Your task to perform on an android device: visit the assistant section in the google photos Image 0: 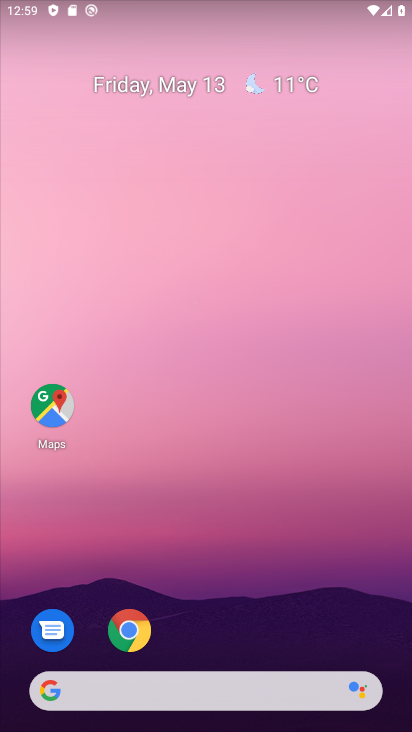
Step 0: drag from (232, 672) to (246, 324)
Your task to perform on an android device: visit the assistant section in the google photos Image 1: 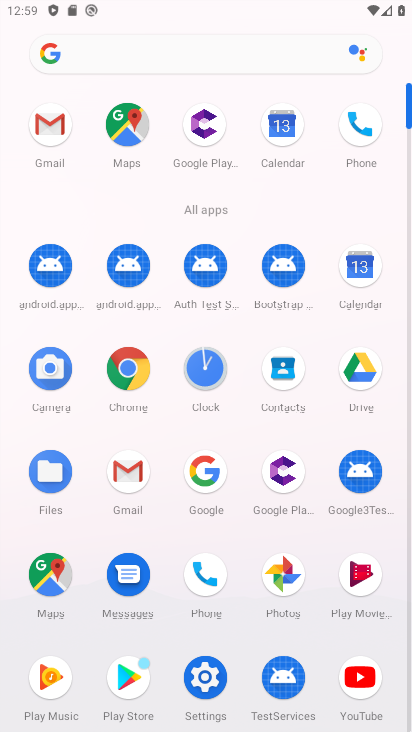
Step 1: click (284, 583)
Your task to perform on an android device: visit the assistant section in the google photos Image 2: 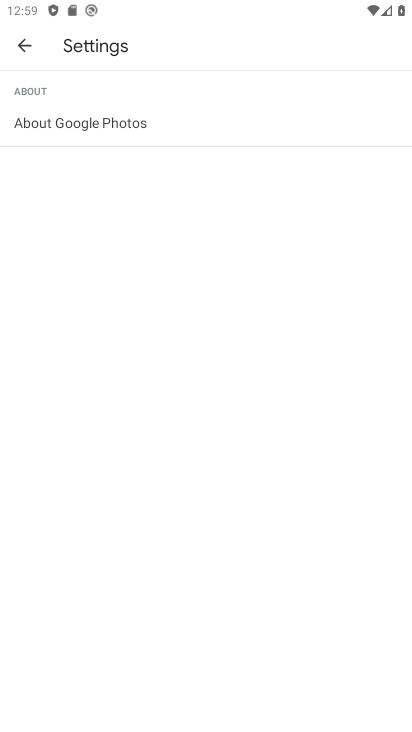
Step 2: click (30, 44)
Your task to perform on an android device: visit the assistant section in the google photos Image 3: 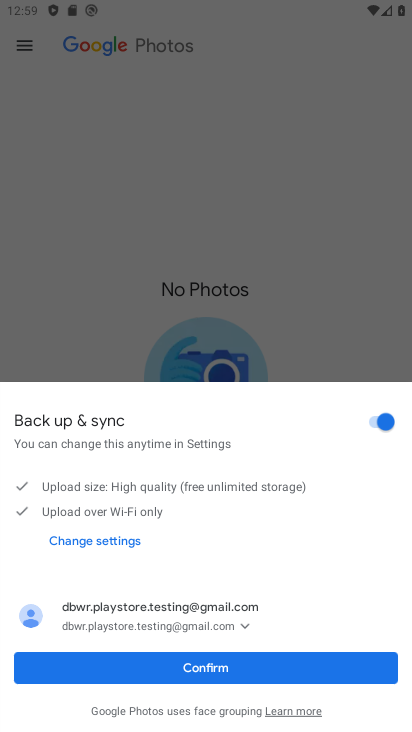
Step 3: click (225, 668)
Your task to perform on an android device: visit the assistant section in the google photos Image 4: 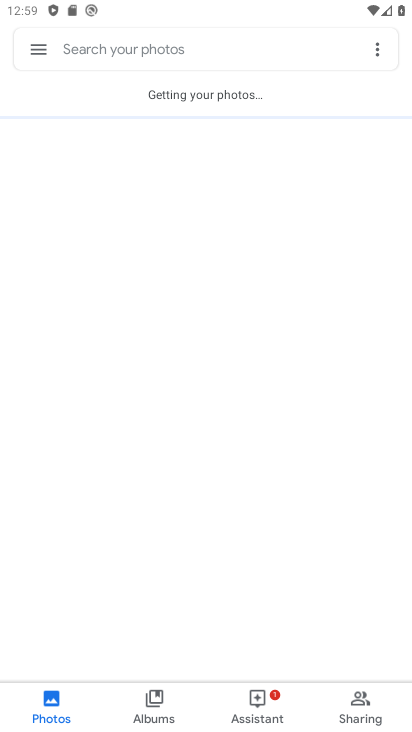
Step 4: click (256, 696)
Your task to perform on an android device: visit the assistant section in the google photos Image 5: 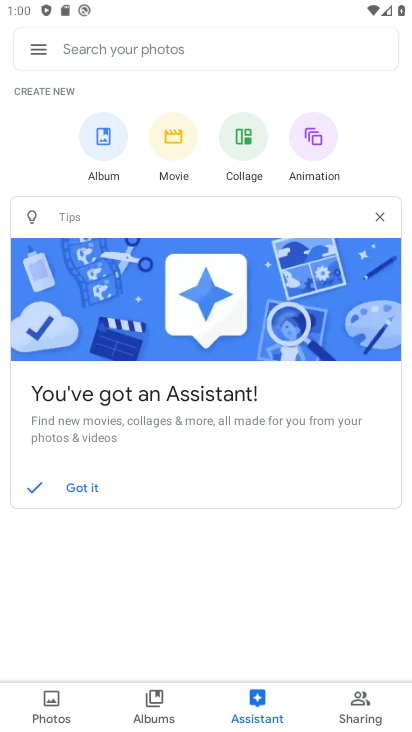
Step 5: task complete